Your task to perform on an android device: manage bookmarks in the chrome app Image 0: 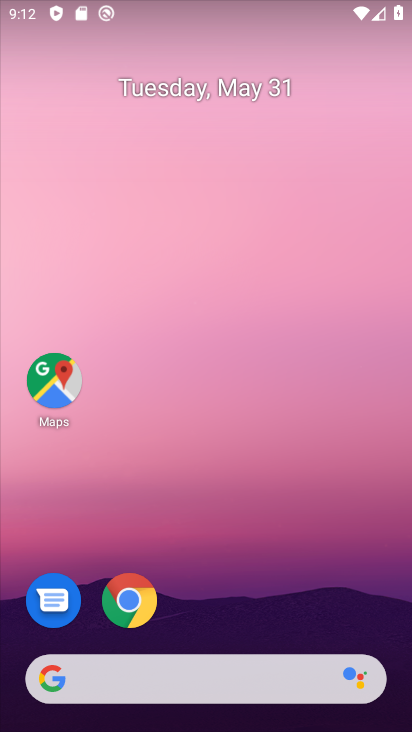
Step 0: click (116, 602)
Your task to perform on an android device: manage bookmarks in the chrome app Image 1: 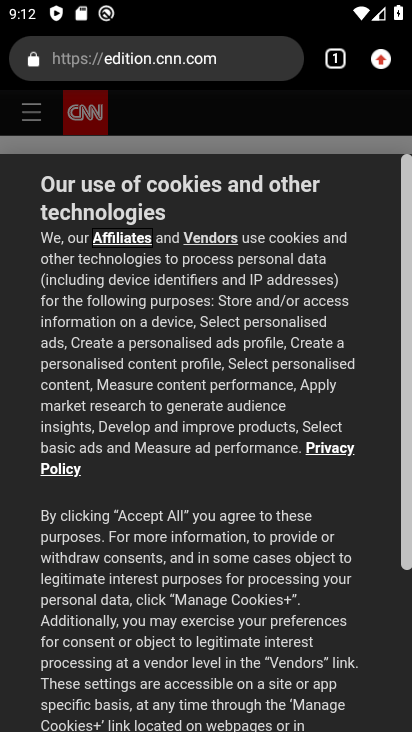
Step 1: drag from (381, 58) to (197, 295)
Your task to perform on an android device: manage bookmarks in the chrome app Image 2: 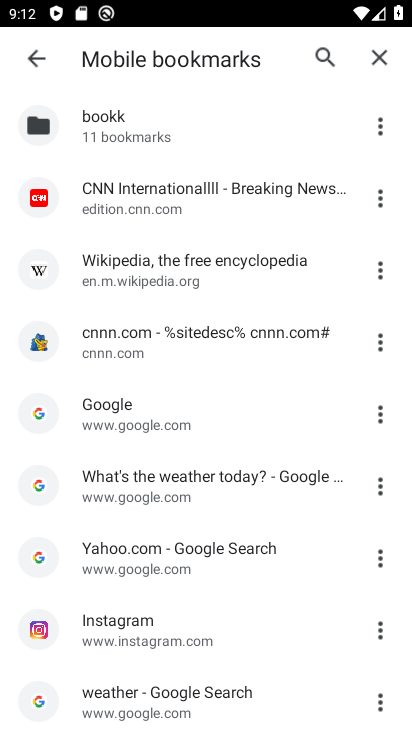
Step 2: click (383, 188)
Your task to perform on an android device: manage bookmarks in the chrome app Image 3: 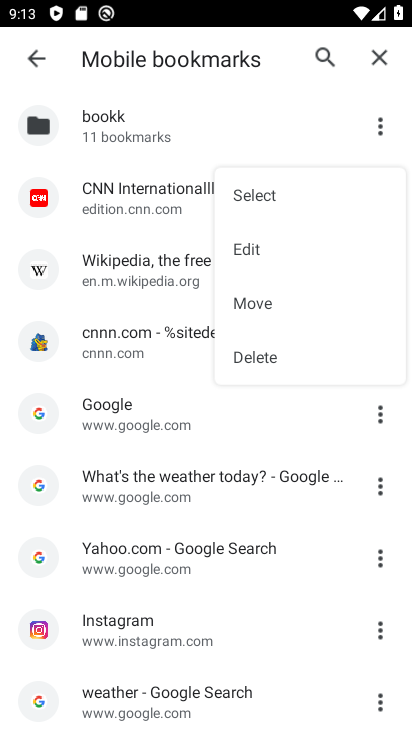
Step 3: click (266, 359)
Your task to perform on an android device: manage bookmarks in the chrome app Image 4: 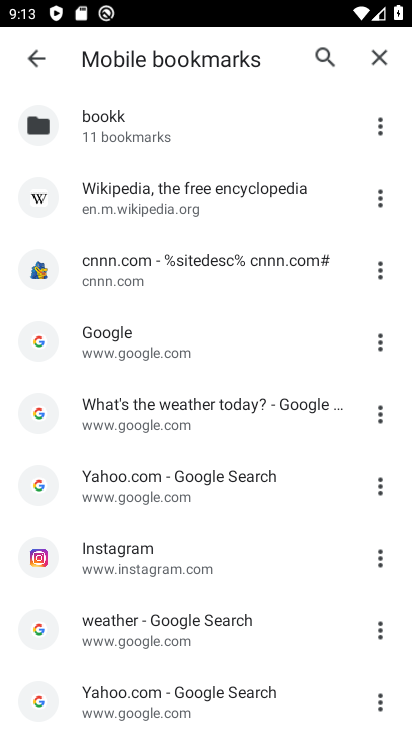
Step 4: task complete